Your task to perform on an android device: turn on bluetooth scan Image 0: 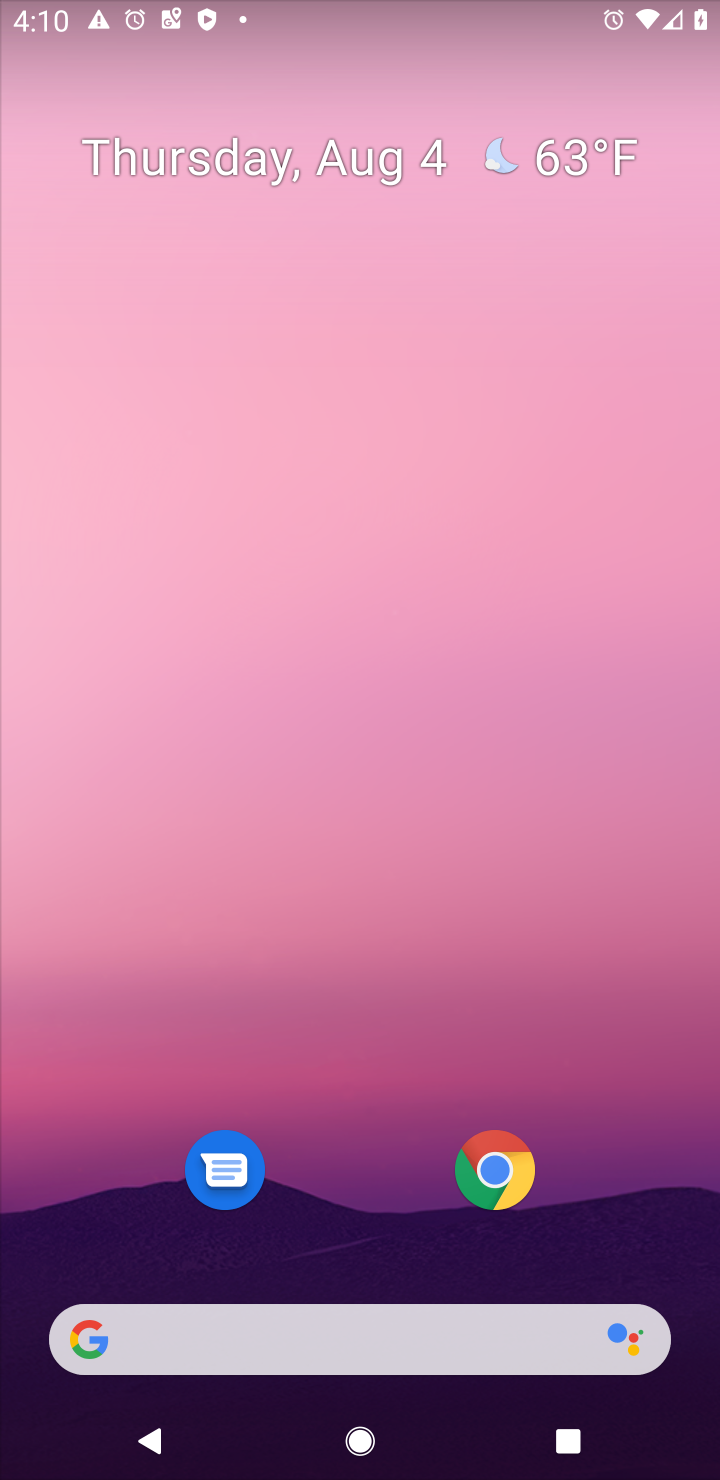
Step 0: drag from (700, 1267) to (634, 391)
Your task to perform on an android device: turn on bluetooth scan Image 1: 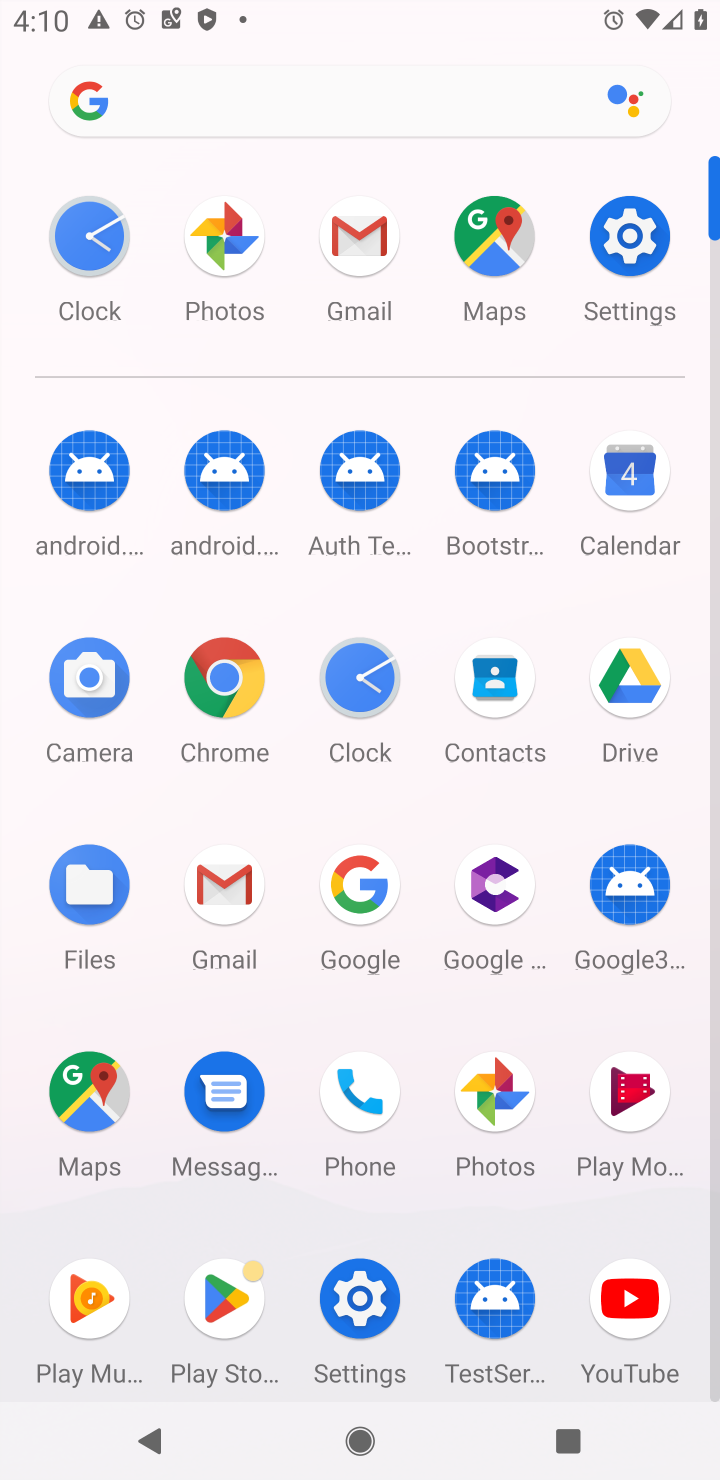
Step 1: click (356, 1298)
Your task to perform on an android device: turn on bluetooth scan Image 2: 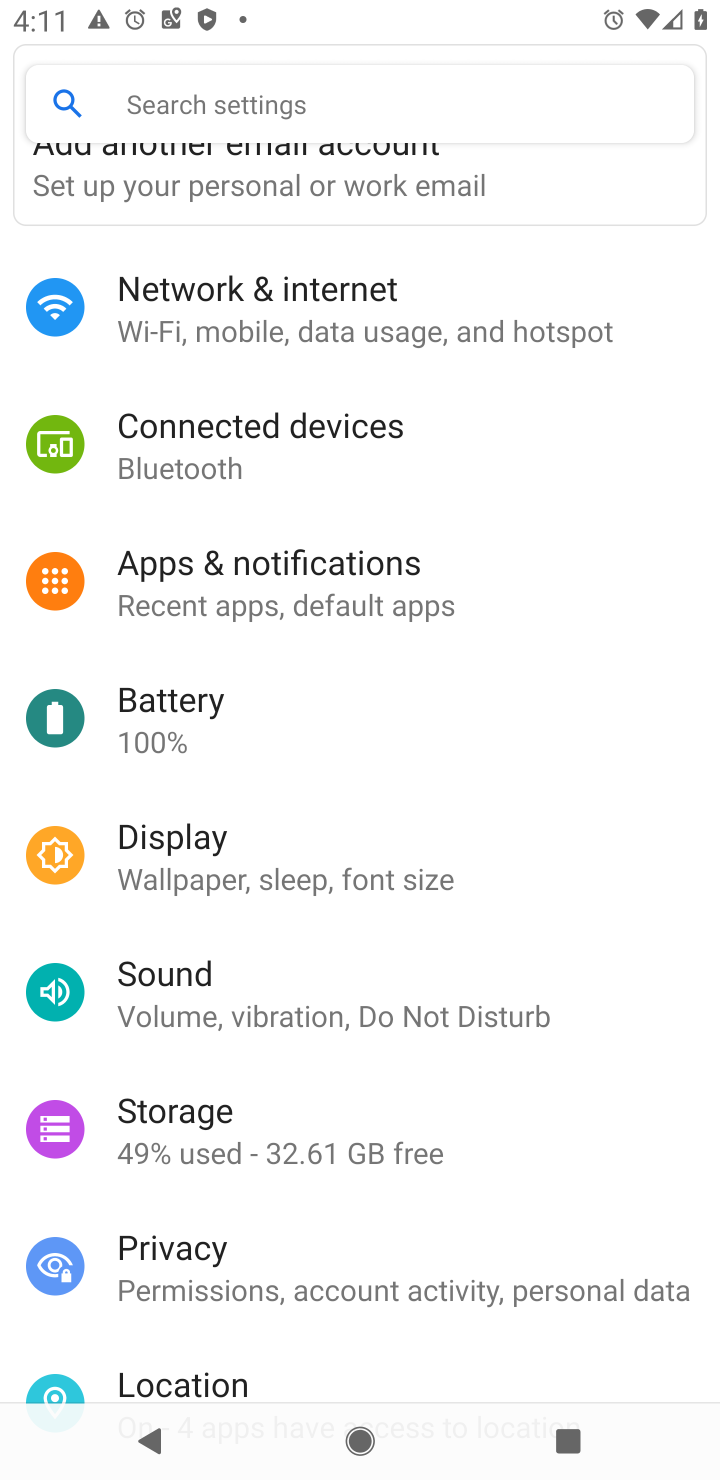
Step 2: drag from (586, 1150) to (531, 331)
Your task to perform on an android device: turn on bluetooth scan Image 3: 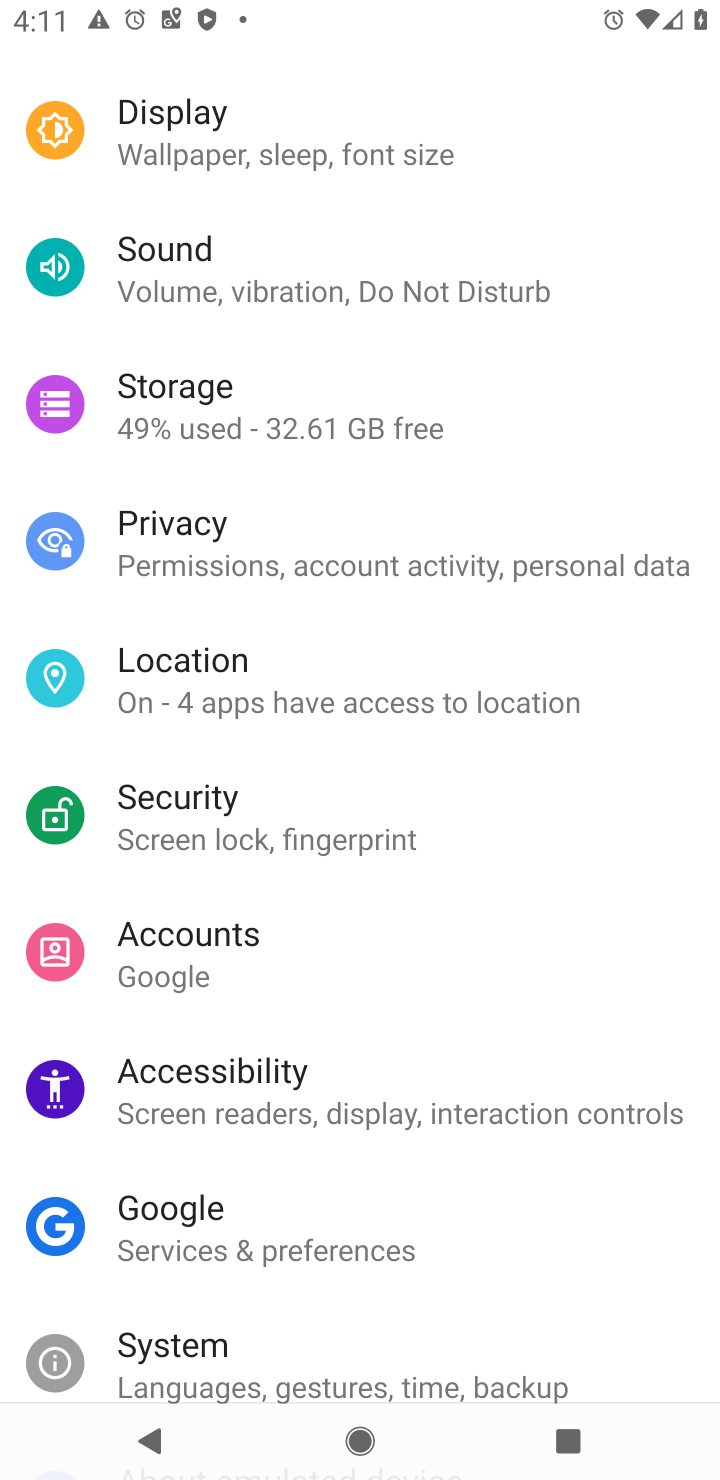
Step 3: click (229, 710)
Your task to perform on an android device: turn on bluetooth scan Image 4: 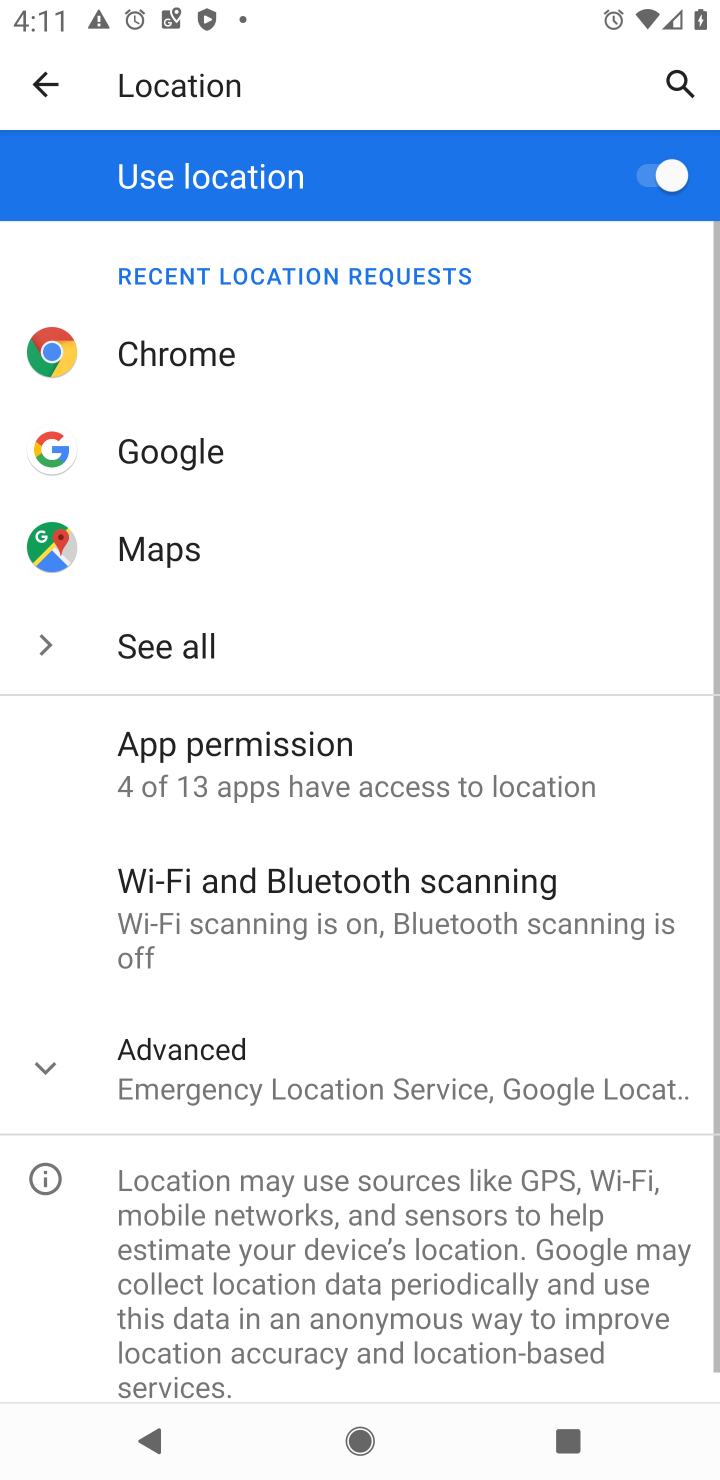
Step 4: click (229, 894)
Your task to perform on an android device: turn on bluetooth scan Image 5: 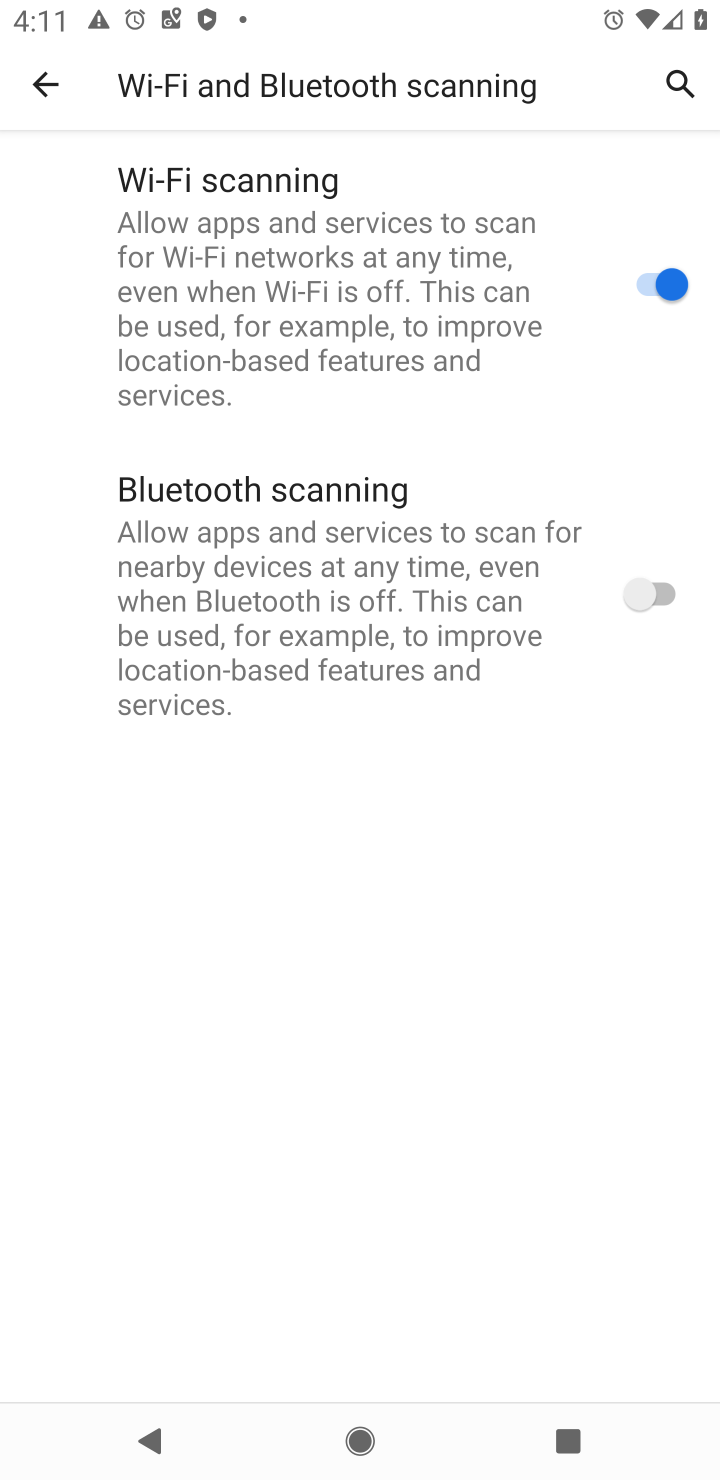
Step 5: click (657, 594)
Your task to perform on an android device: turn on bluetooth scan Image 6: 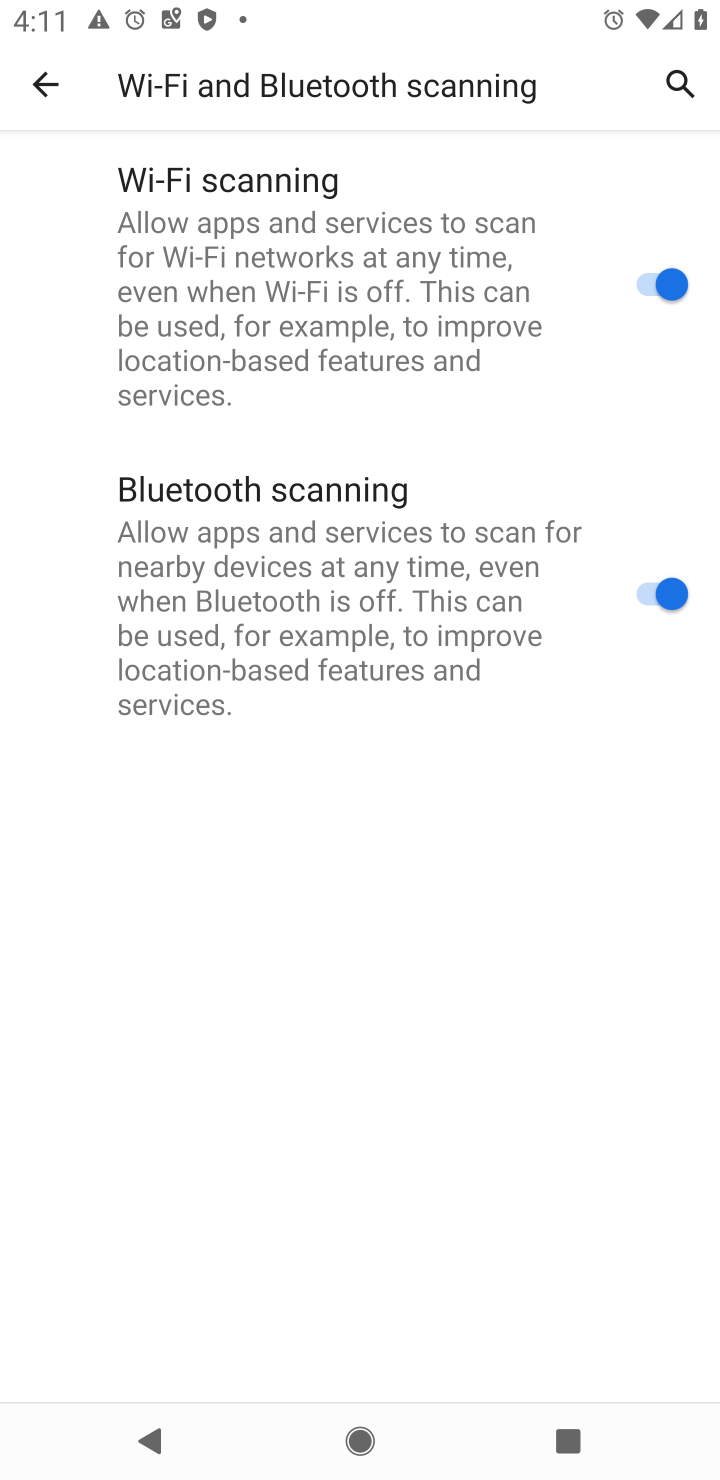
Step 6: task complete